Your task to perform on an android device: clear all cookies in the chrome app Image 0: 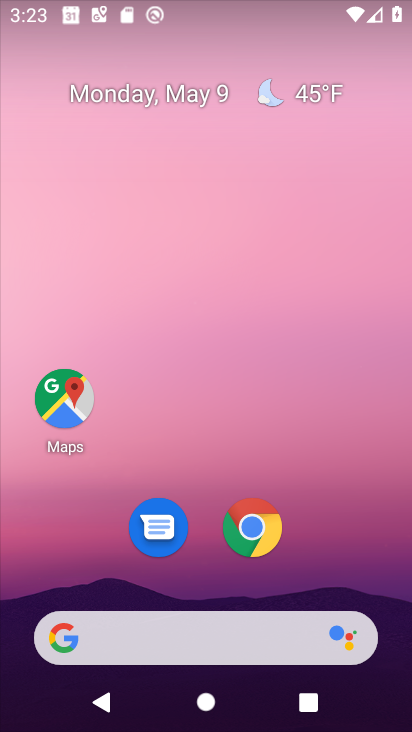
Step 0: click (250, 419)
Your task to perform on an android device: clear all cookies in the chrome app Image 1: 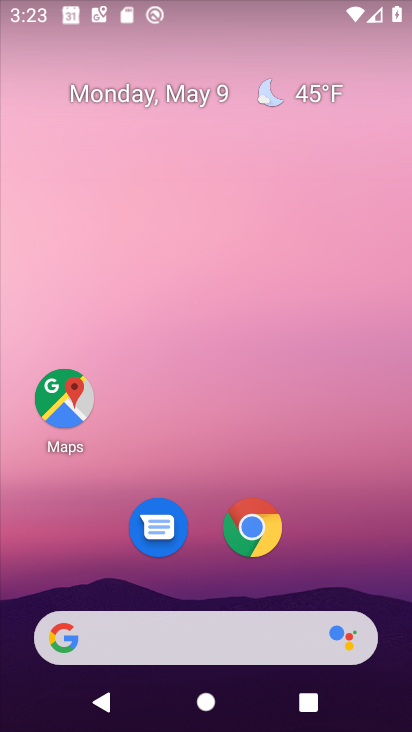
Step 1: click (250, 419)
Your task to perform on an android device: clear all cookies in the chrome app Image 2: 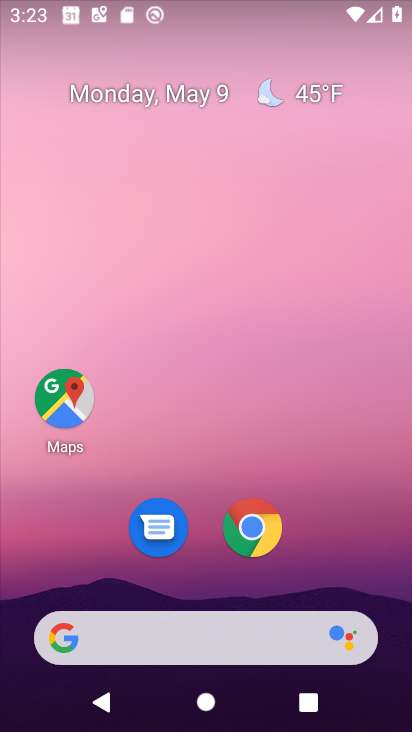
Step 2: click (257, 531)
Your task to perform on an android device: clear all cookies in the chrome app Image 3: 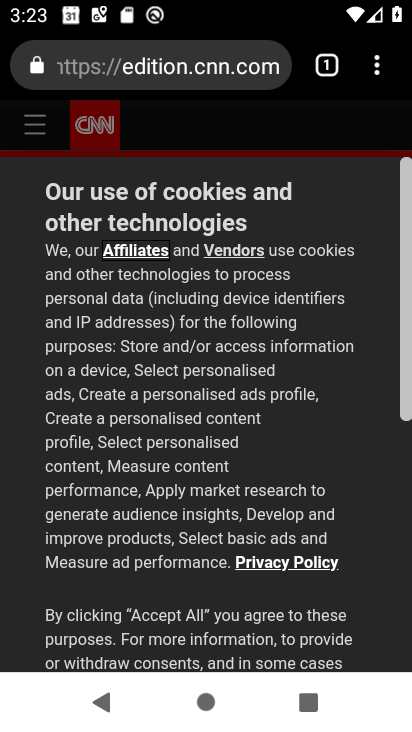
Step 3: click (374, 68)
Your task to perform on an android device: clear all cookies in the chrome app Image 4: 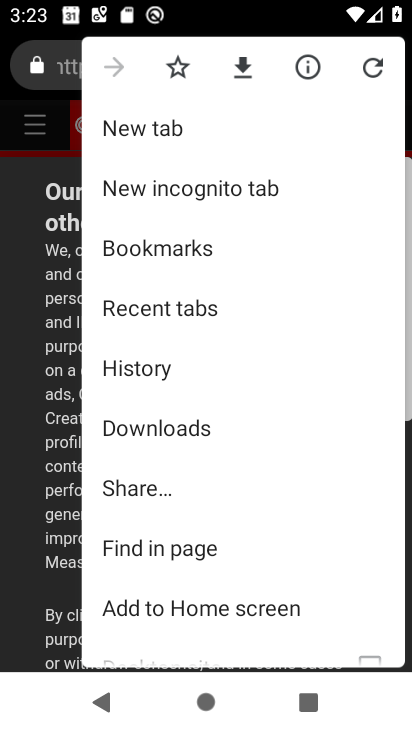
Step 4: click (199, 373)
Your task to perform on an android device: clear all cookies in the chrome app Image 5: 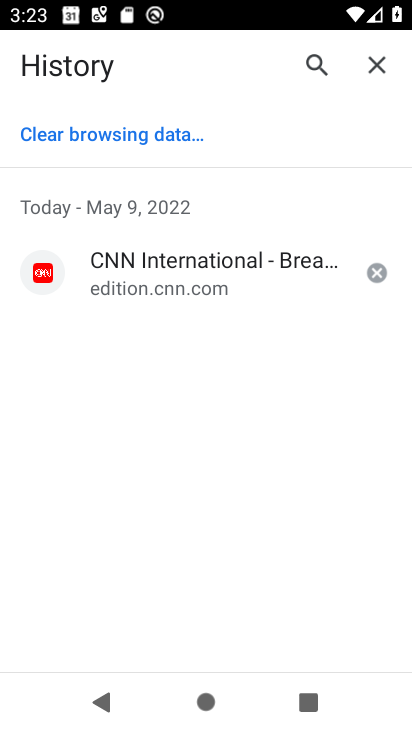
Step 5: click (162, 137)
Your task to perform on an android device: clear all cookies in the chrome app Image 6: 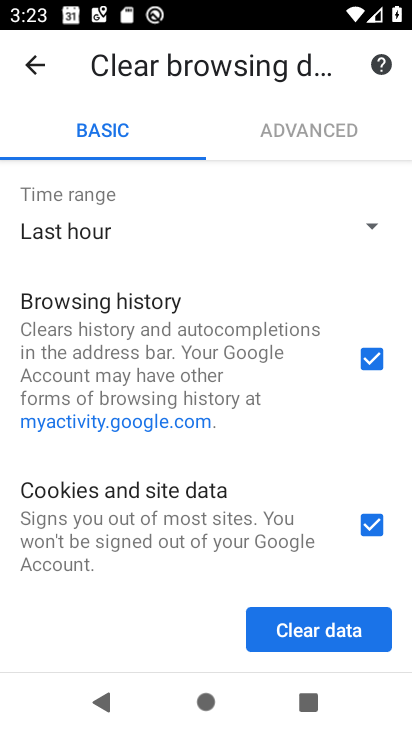
Step 6: click (372, 356)
Your task to perform on an android device: clear all cookies in the chrome app Image 7: 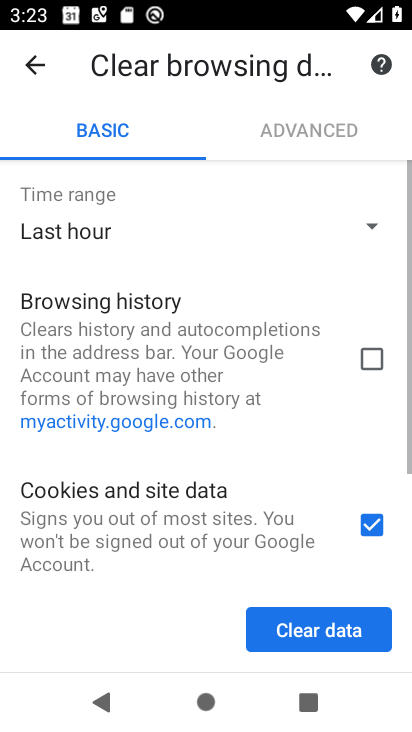
Step 7: click (345, 629)
Your task to perform on an android device: clear all cookies in the chrome app Image 8: 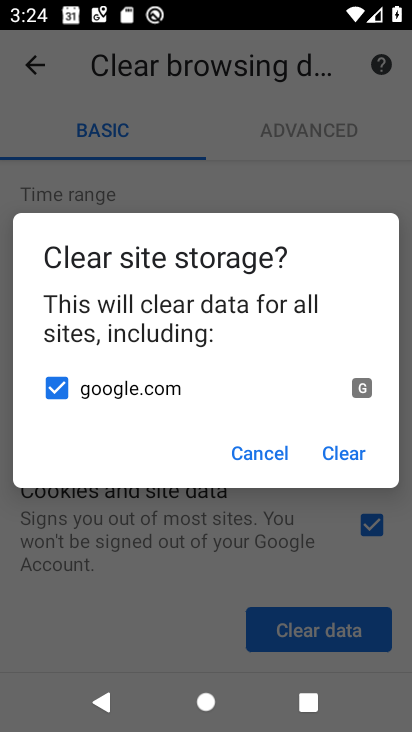
Step 8: click (342, 450)
Your task to perform on an android device: clear all cookies in the chrome app Image 9: 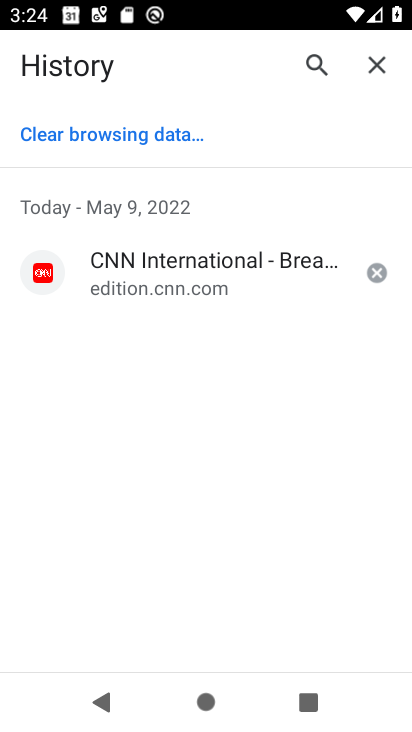
Step 9: task complete